Your task to perform on an android device: What's the weather today? Image 0: 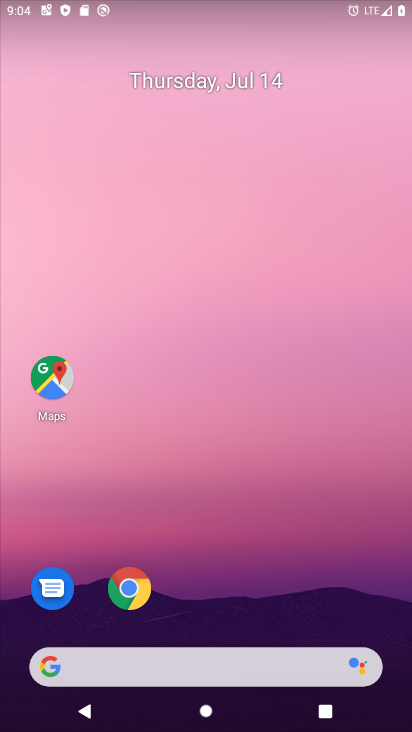
Step 0: drag from (248, 573) to (178, 2)
Your task to perform on an android device: What's the weather today? Image 1: 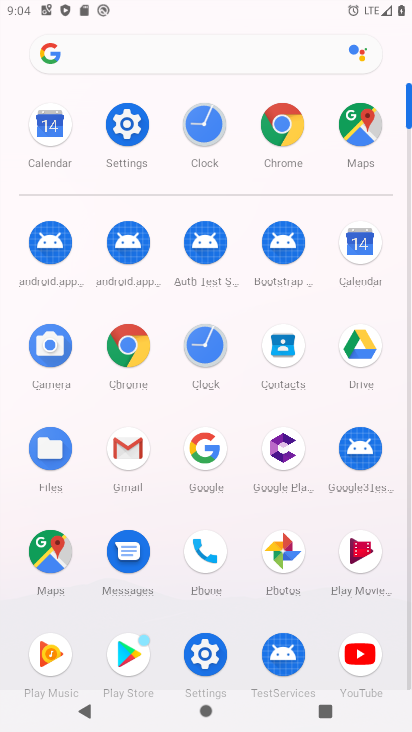
Step 1: click (192, 437)
Your task to perform on an android device: What's the weather today? Image 2: 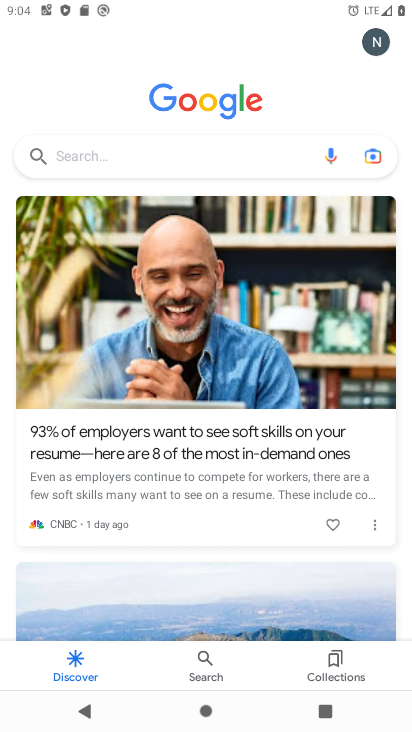
Step 2: click (188, 137)
Your task to perform on an android device: What's the weather today? Image 3: 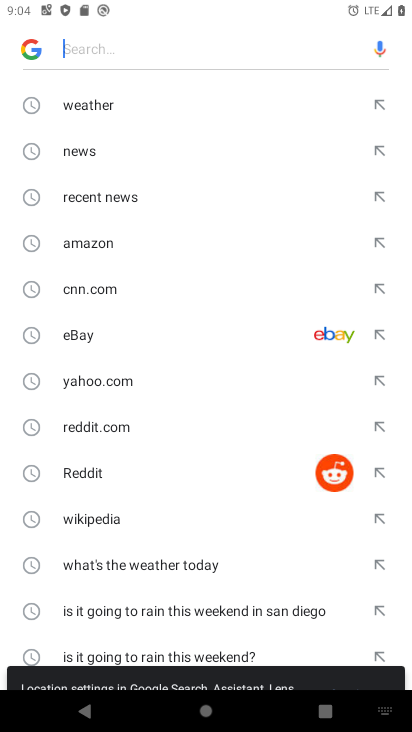
Step 3: click (62, 97)
Your task to perform on an android device: What's the weather today? Image 4: 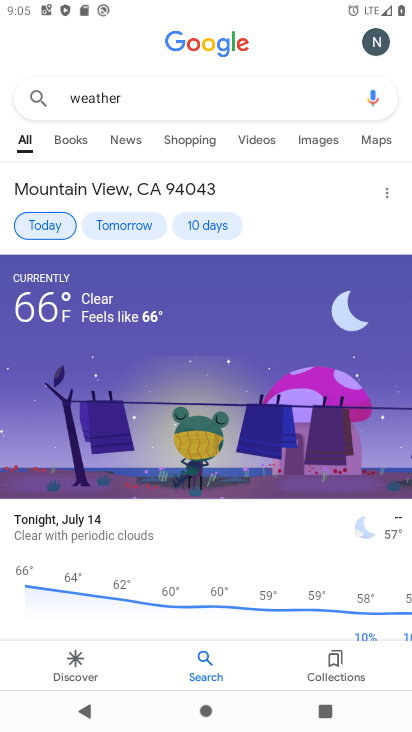
Step 4: task complete